Your task to perform on an android device: Search for shimano brake pads on Walmart Image 0: 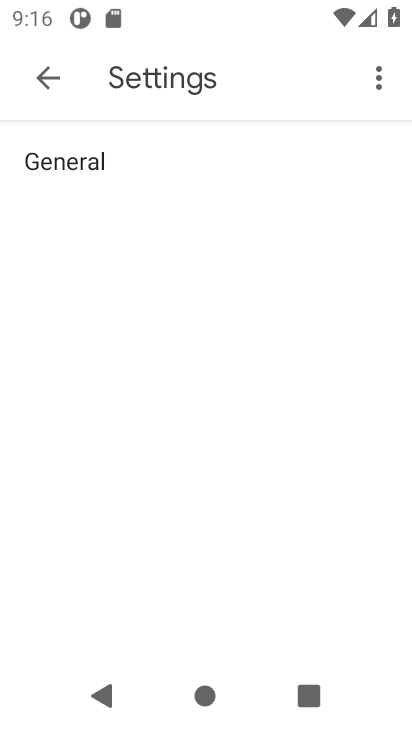
Step 0: task complete